Your task to perform on an android device: visit the assistant section in the google photos Image 0: 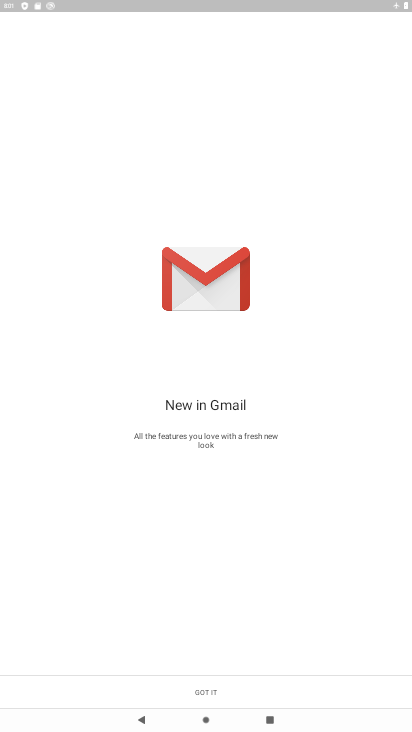
Step 0: press home button
Your task to perform on an android device: visit the assistant section in the google photos Image 1: 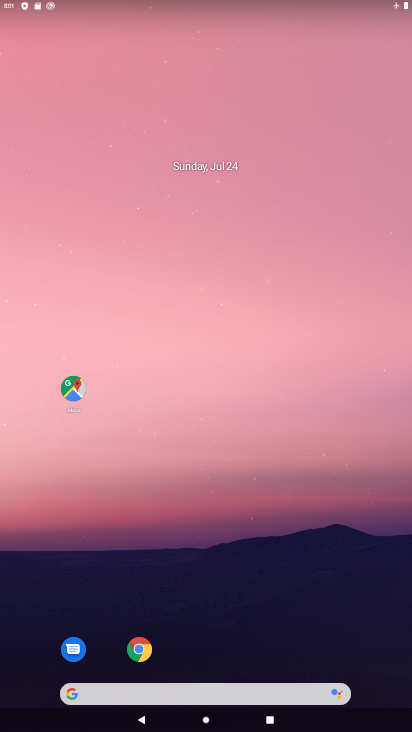
Step 1: drag from (219, 688) to (192, 43)
Your task to perform on an android device: visit the assistant section in the google photos Image 2: 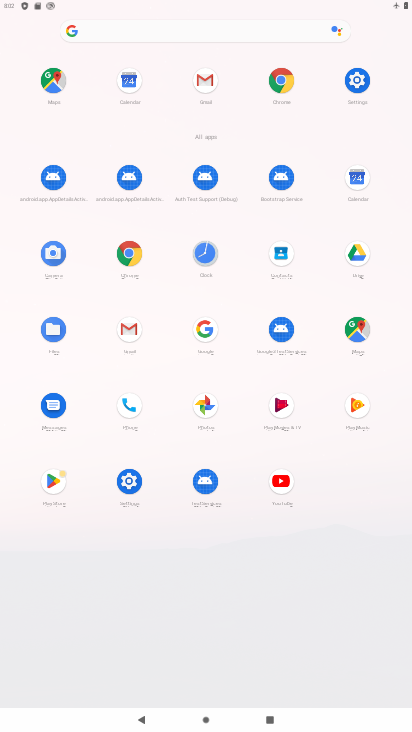
Step 2: click (204, 411)
Your task to perform on an android device: visit the assistant section in the google photos Image 3: 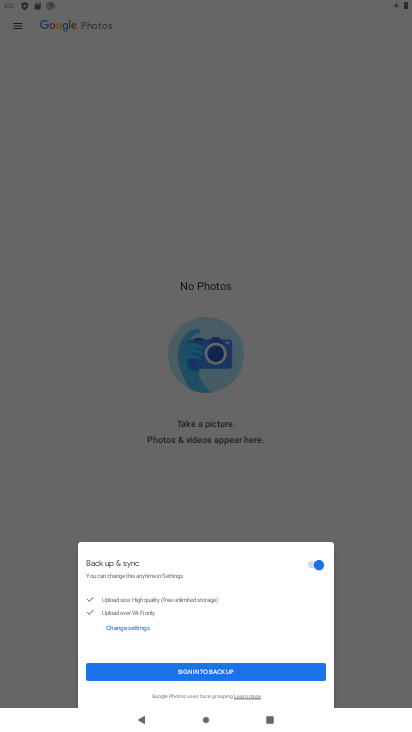
Step 3: click (203, 680)
Your task to perform on an android device: visit the assistant section in the google photos Image 4: 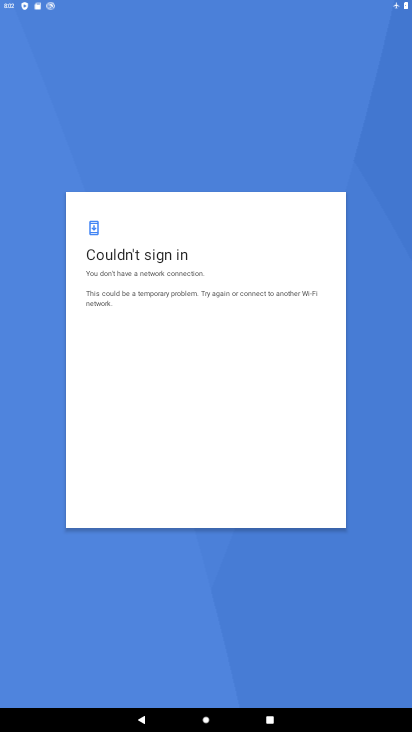
Step 4: task complete